Your task to perform on an android device: turn off location Image 0: 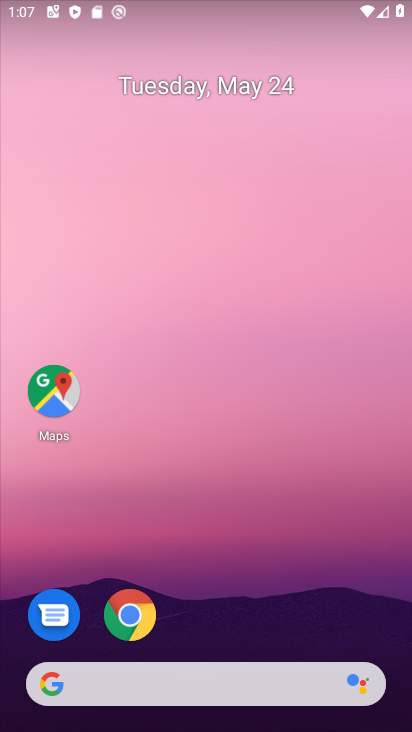
Step 0: drag from (243, 636) to (321, 64)
Your task to perform on an android device: turn off location Image 1: 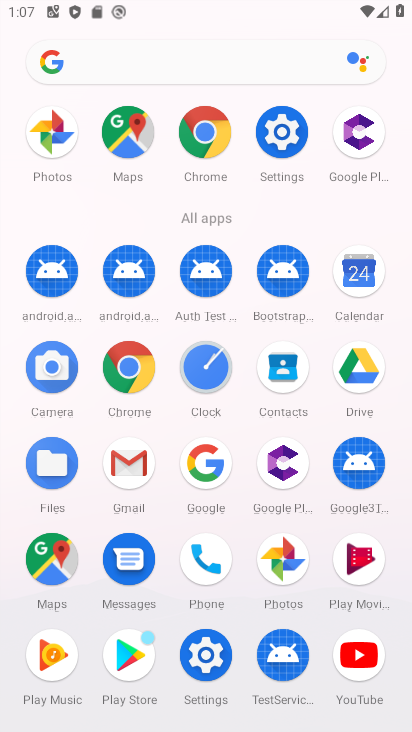
Step 1: click (283, 138)
Your task to perform on an android device: turn off location Image 2: 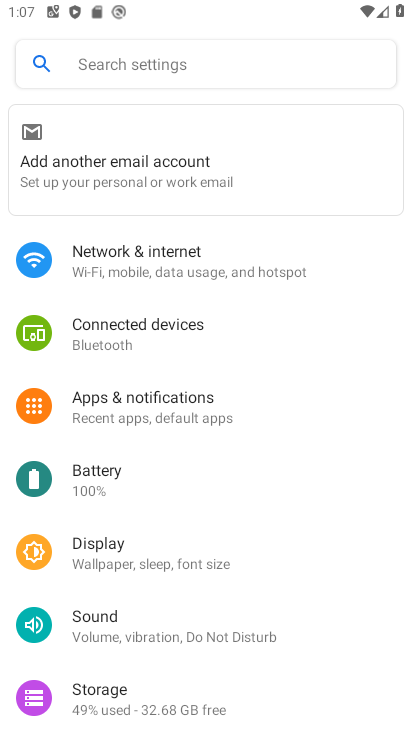
Step 2: drag from (157, 617) to (242, 138)
Your task to perform on an android device: turn off location Image 3: 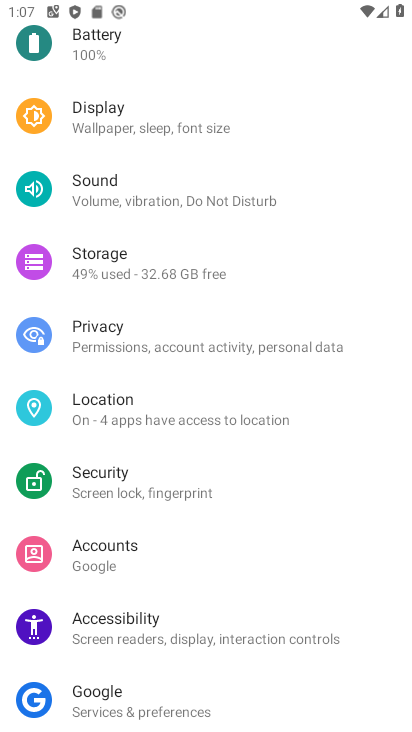
Step 3: click (117, 423)
Your task to perform on an android device: turn off location Image 4: 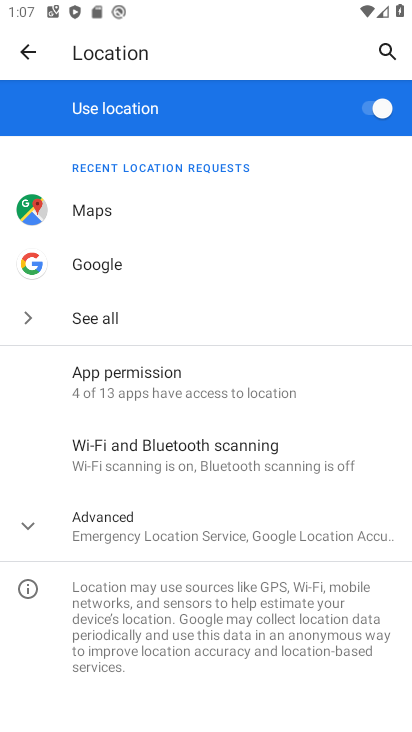
Step 4: click (378, 114)
Your task to perform on an android device: turn off location Image 5: 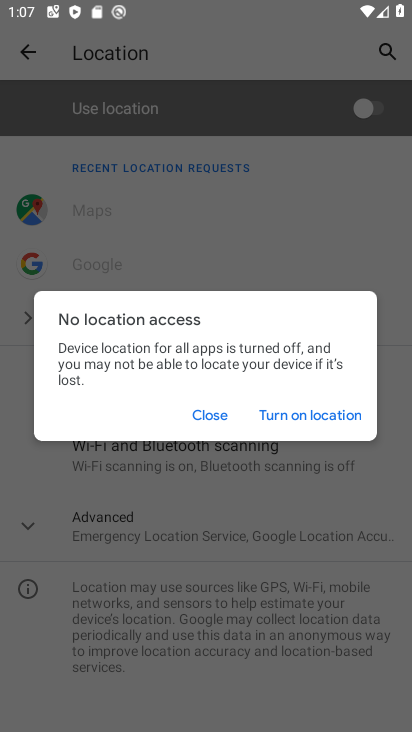
Step 5: task complete